Your task to perform on an android device: choose inbox layout in the gmail app Image 0: 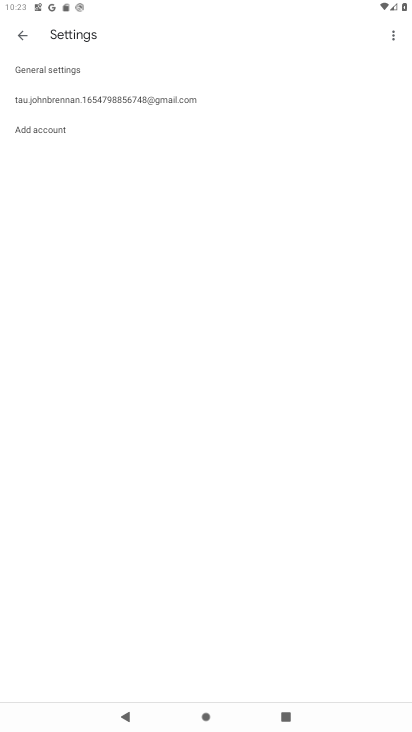
Step 0: press home button
Your task to perform on an android device: choose inbox layout in the gmail app Image 1: 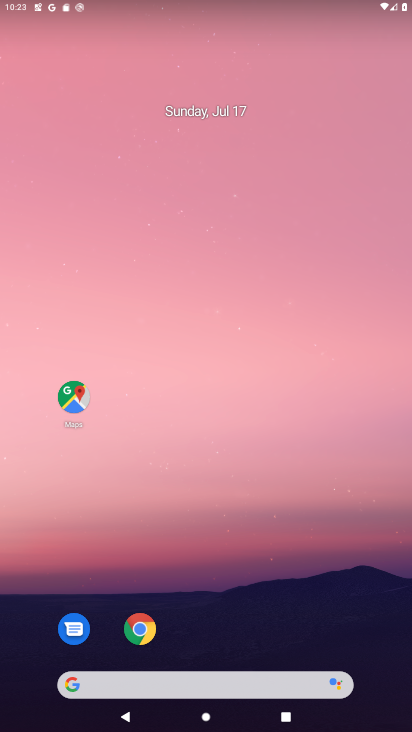
Step 1: drag from (231, 687) to (314, 193)
Your task to perform on an android device: choose inbox layout in the gmail app Image 2: 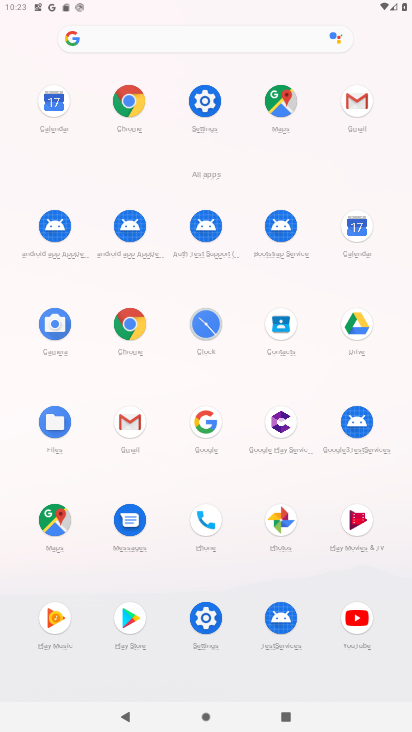
Step 2: click (357, 96)
Your task to perform on an android device: choose inbox layout in the gmail app Image 3: 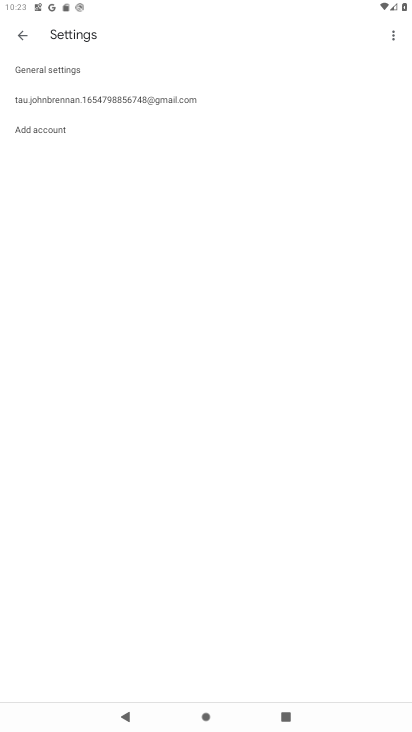
Step 3: click (195, 102)
Your task to perform on an android device: choose inbox layout in the gmail app Image 4: 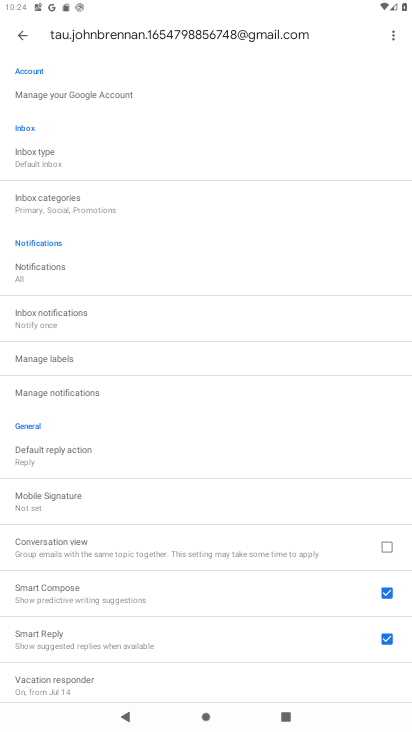
Step 4: click (39, 162)
Your task to perform on an android device: choose inbox layout in the gmail app Image 5: 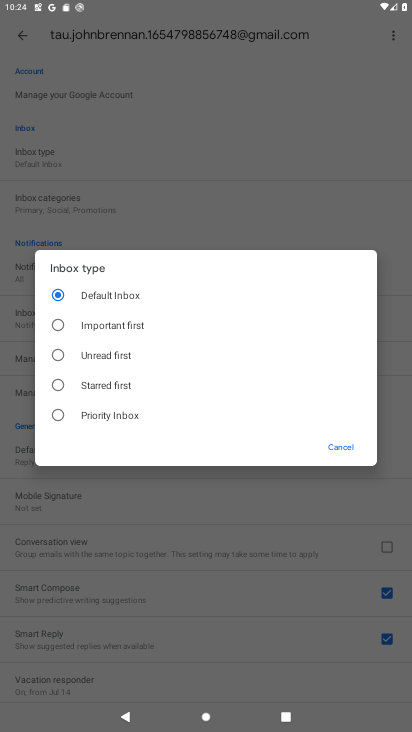
Step 5: click (87, 325)
Your task to perform on an android device: choose inbox layout in the gmail app Image 6: 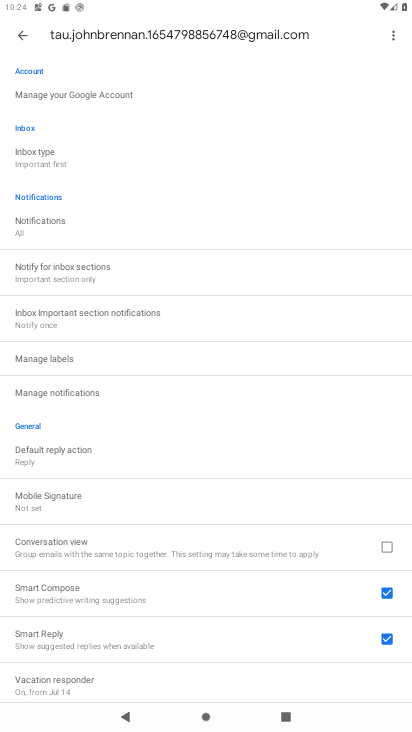
Step 6: task complete